Your task to perform on an android device: Search for a dining table on Crate & Barrel Image 0: 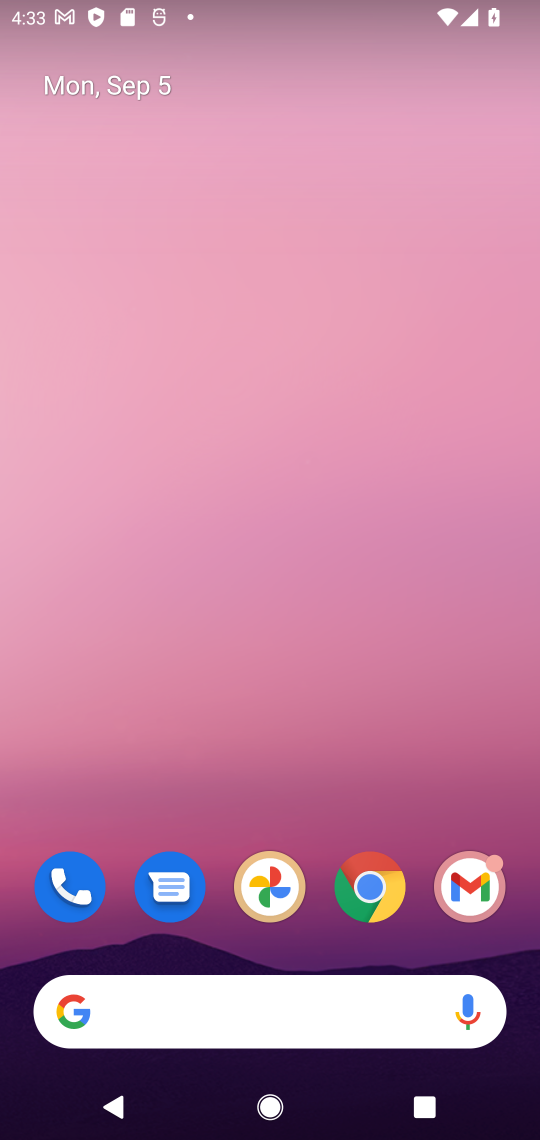
Step 0: drag from (165, 12) to (14, 0)
Your task to perform on an android device: Search for a dining table on Crate & Barrel Image 1: 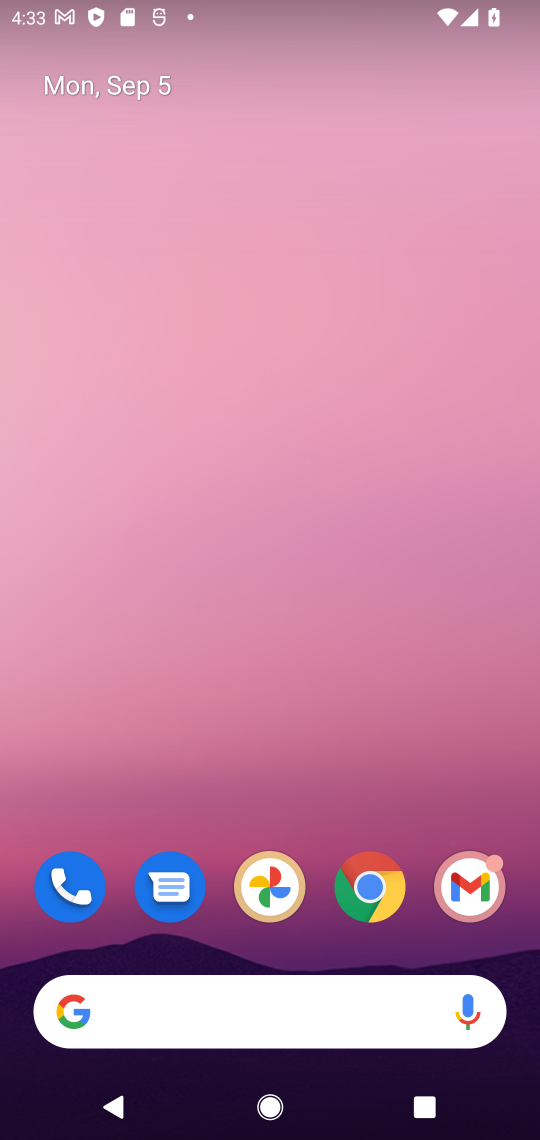
Step 1: drag from (331, 796) to (321, 86)
Your task to perform on an android device: Search for a dining table on Crate & Barrel Image 2: 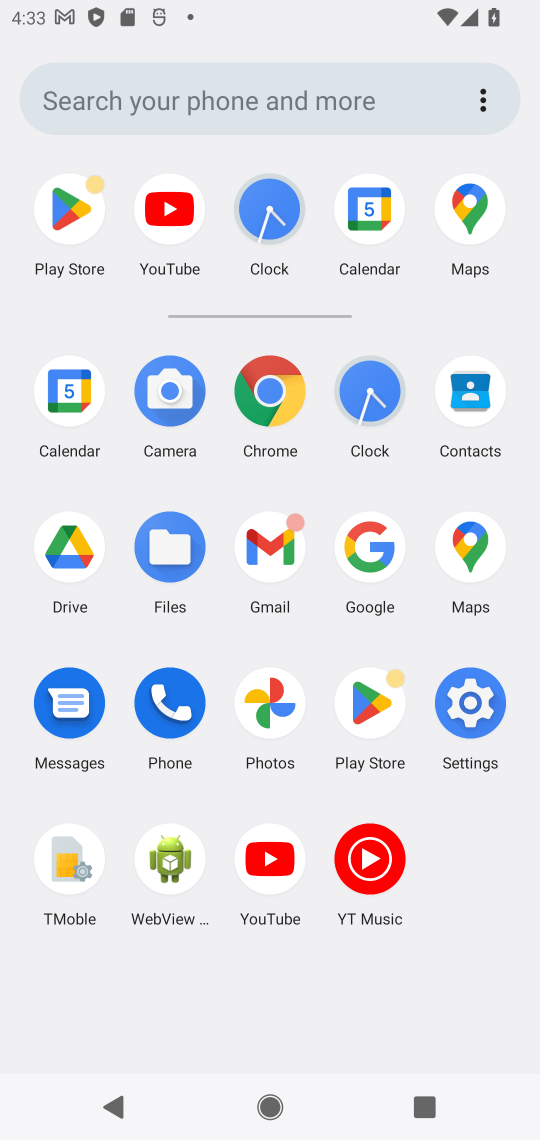
Step 2: click (260, 369)
Your task to perform on an android device: Search for a dining table on Crate & Barrel Image 3: 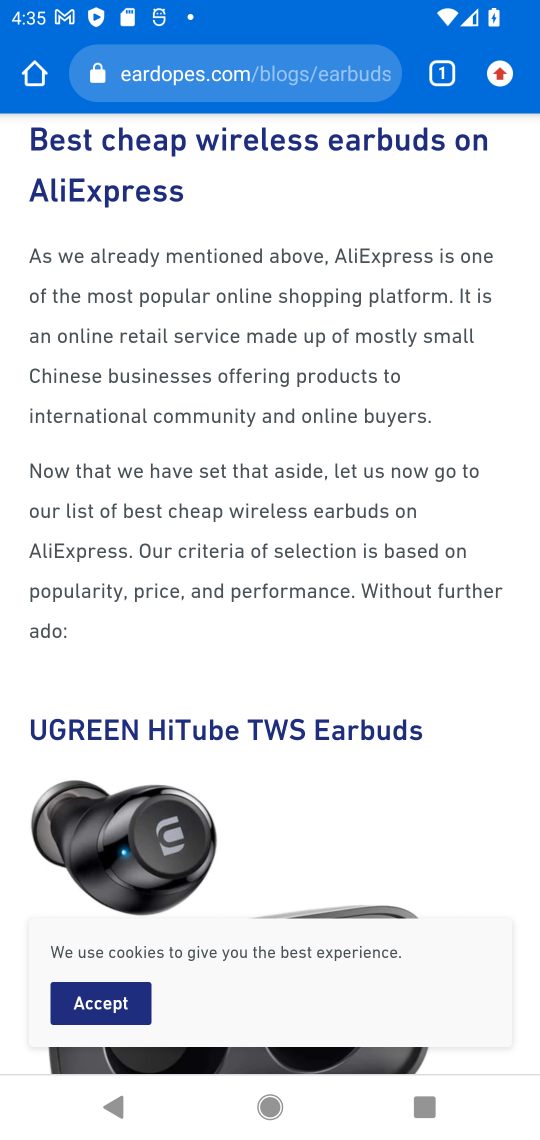
Step 3: click (222, 73)
Your task to perform on an android device: Search for a dining table on Crate & Barrel Image 4: 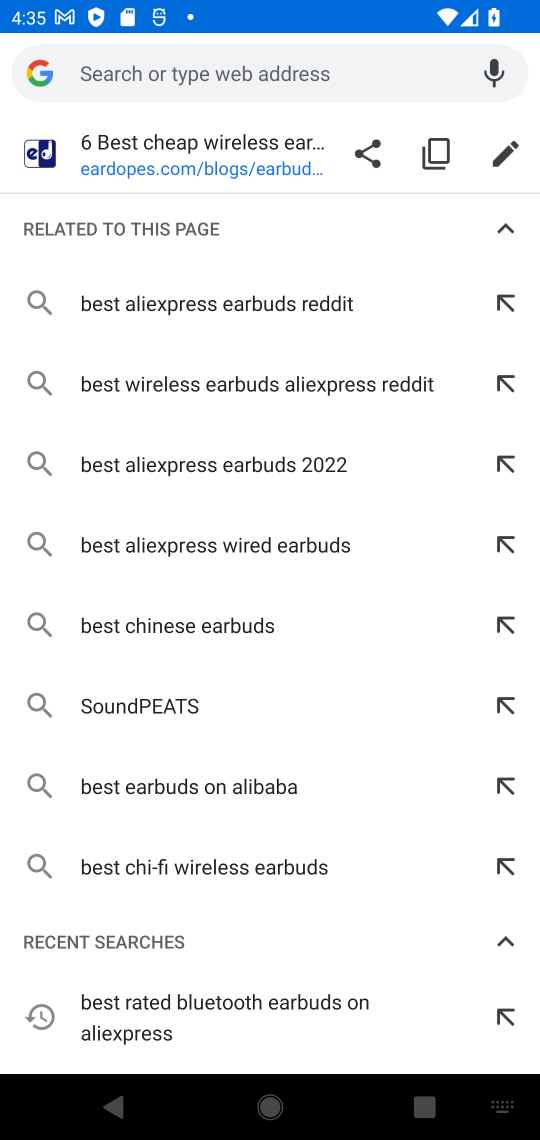
Step 4: type "dining table on Crate & Barrel"
Your task to perform on an android device: Search for a dining table on Crate & Barrel Image 5: 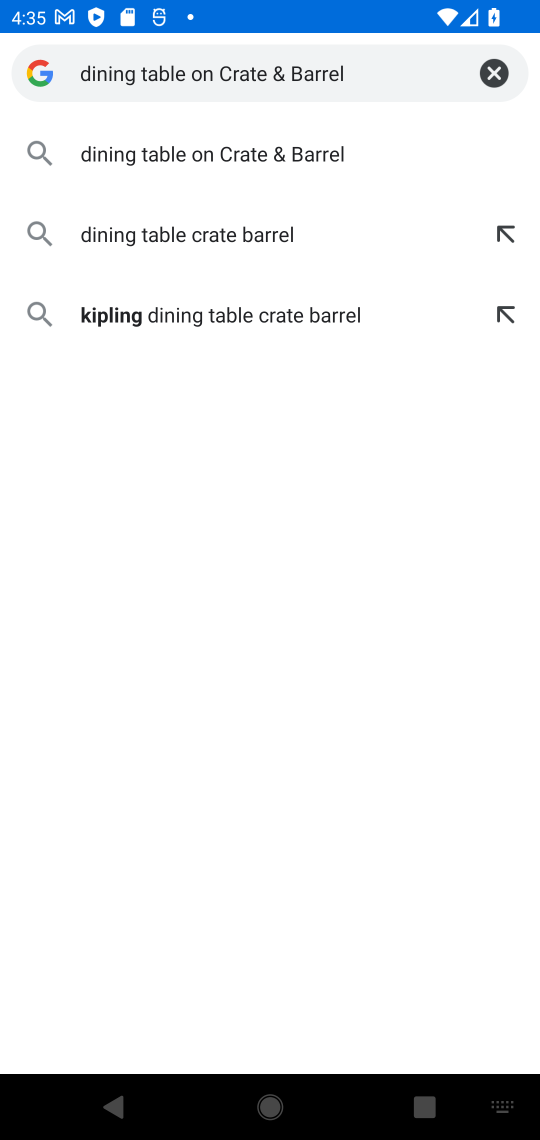
Step 5: press enter
Your task to perform on an android device: Search for a dining table on Crate & Barrel Image 6: 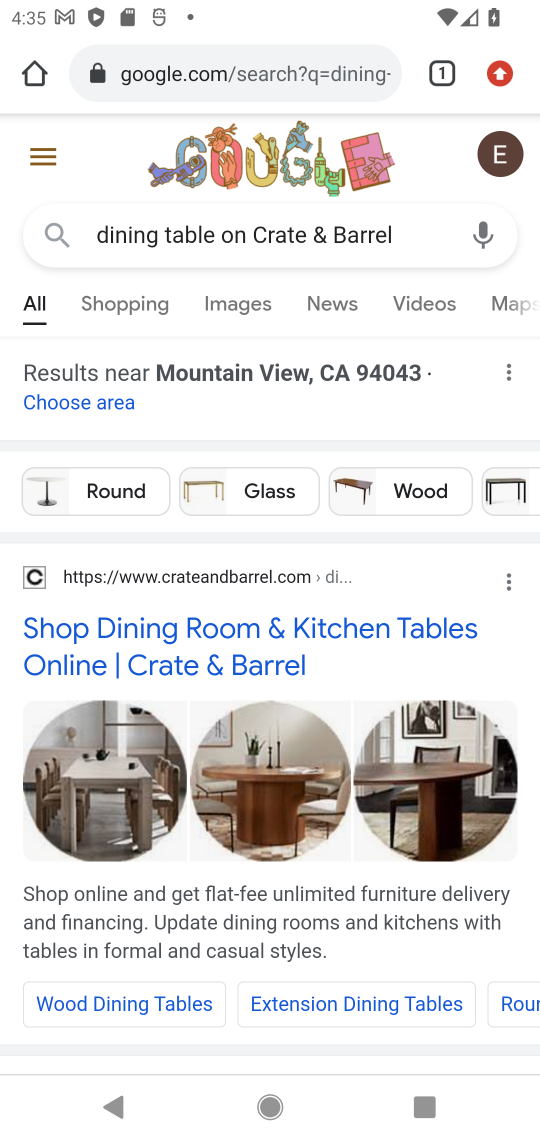
Step 6: click (295, 638)
Your task to perform on an android device: Search for a dining table on Crate & Barrel Image 7: 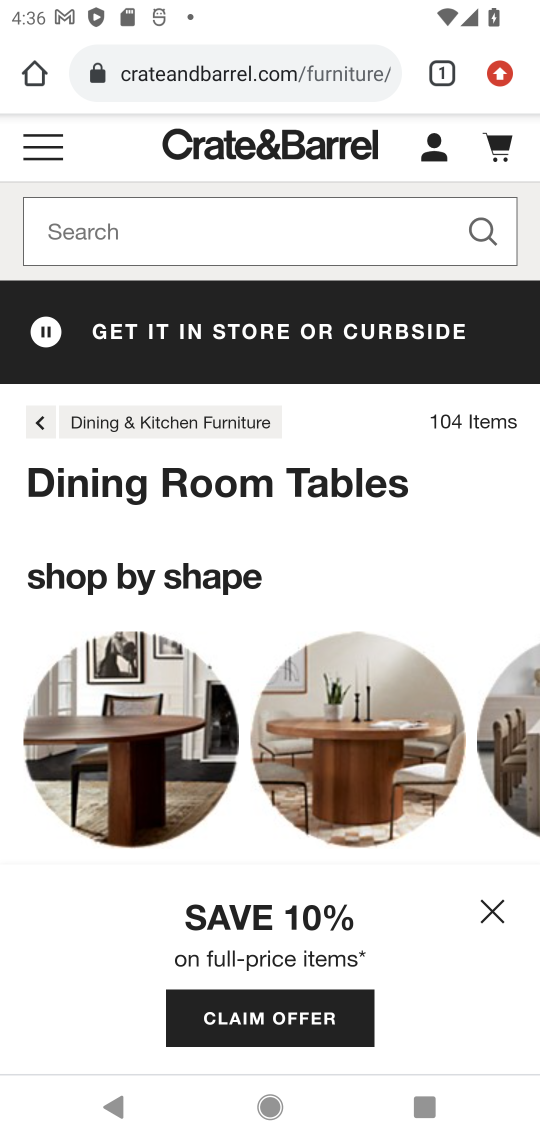
Step 7: task complete